Your task to perform on an android device: clear all cookies in the chrome app Image 0: 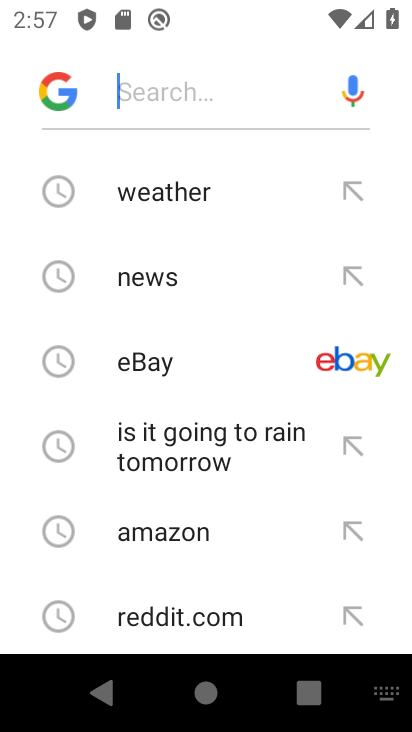
Step 0: press home button
Your task to perform on an android device: clear all cookies in the chrome app Image 1: 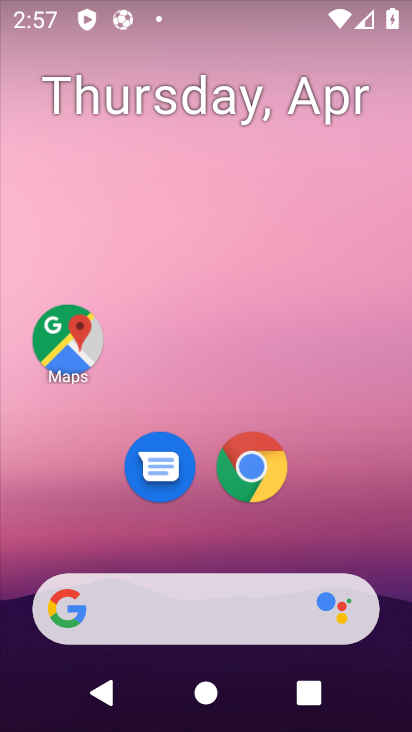
Step 1: click (266, 479)
Your task to perform on an android device: clear all cookies in the chrome app Image 2: 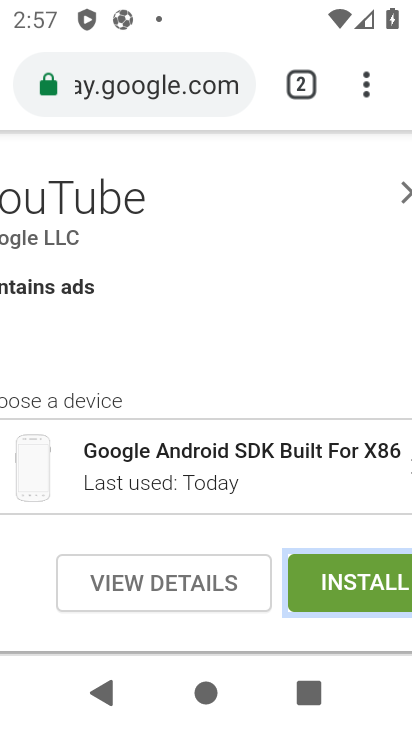
Step 2: click (362, 77)
Your task to perform on an android device: clear all cookies in the chrome app Image 3: 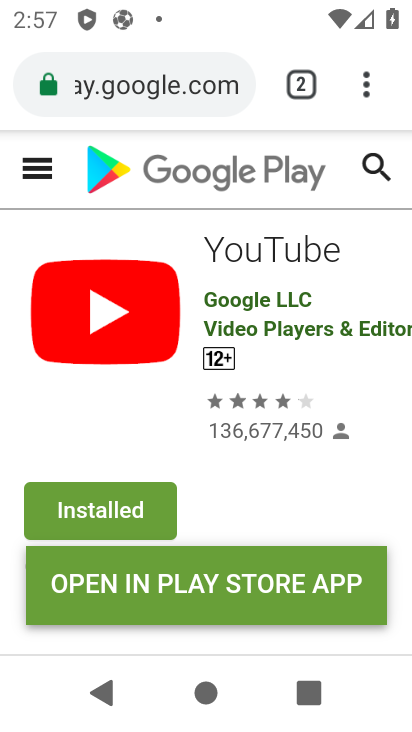
Step 3: click (362, 79)
Your task to perform on an android device: clear all cookies in the chrome app Image 4: 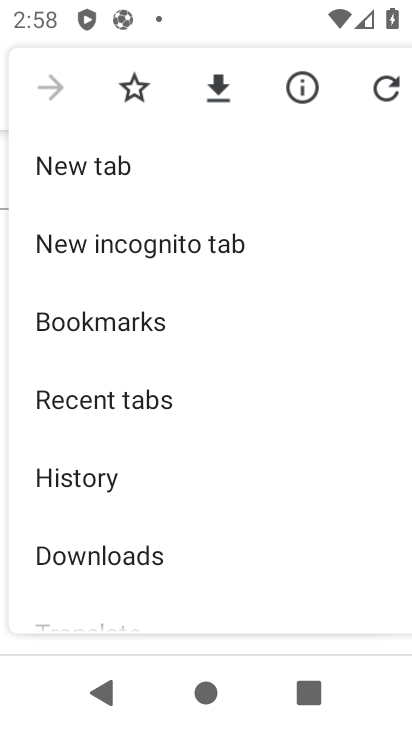
Step 4: drag from (220, 534) to (270, 201)
Your task to perform on an android device: clear all cookies in the chrome app Image 5: 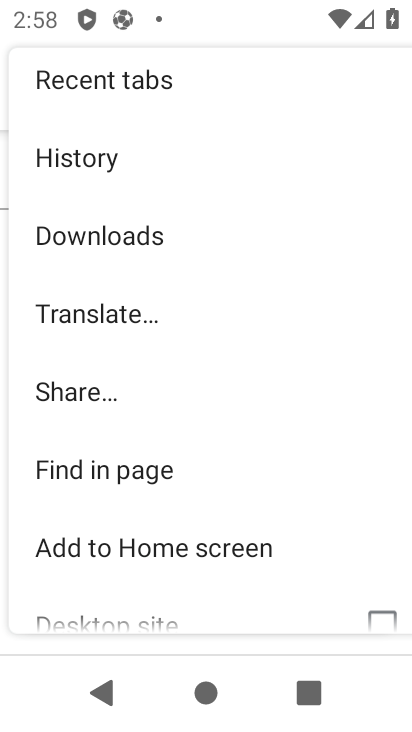
Step 5: drag from (214, 470) to (221, 135)
Your task to perform on an android device: clear all cookies in the chrome app Image 6: 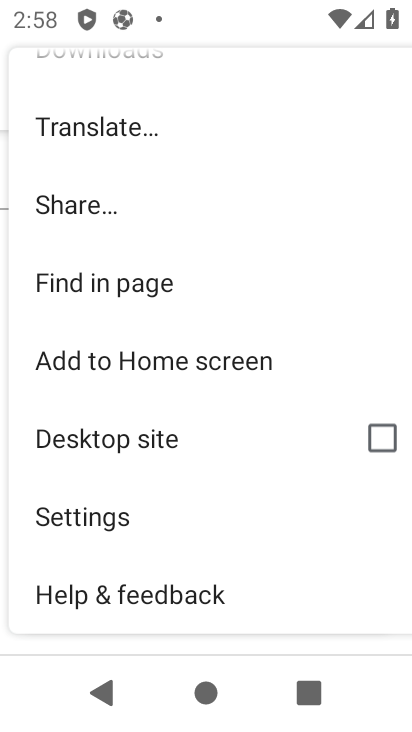
Step 6: click (138, 516)
Your task to perform on an android device: clear all cookies in the chrome app Image 7: 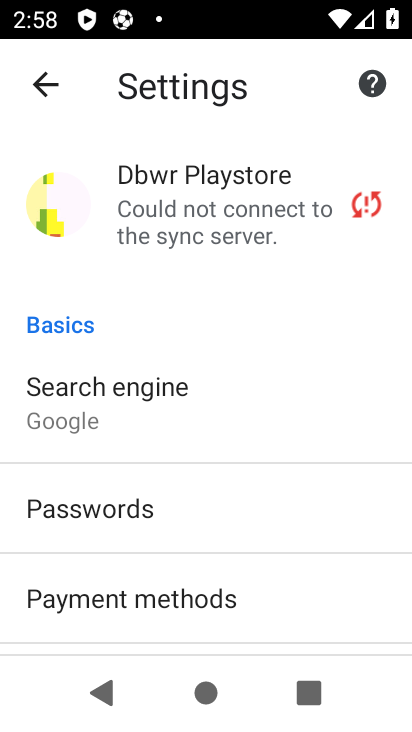
Step 7: drag from (222, 561) to (211, 247)
Your task to perform on an android device: clear all cookies in the chrome app Image 8: 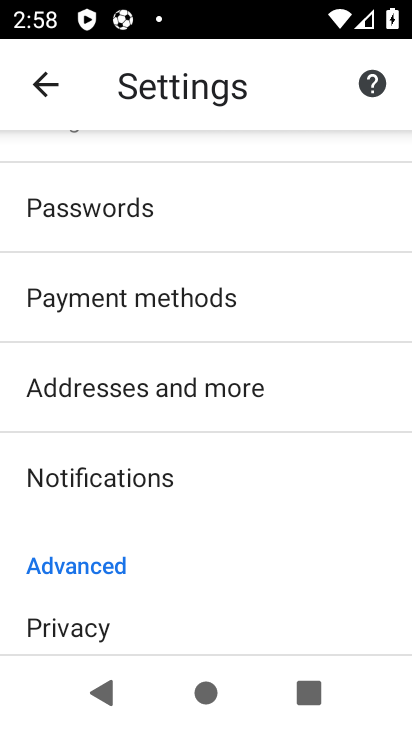
Step 8: drag from (221, 551) to (216, 384)
Your task to perform on an android device: clear all cookies in the chrome app Image 9: 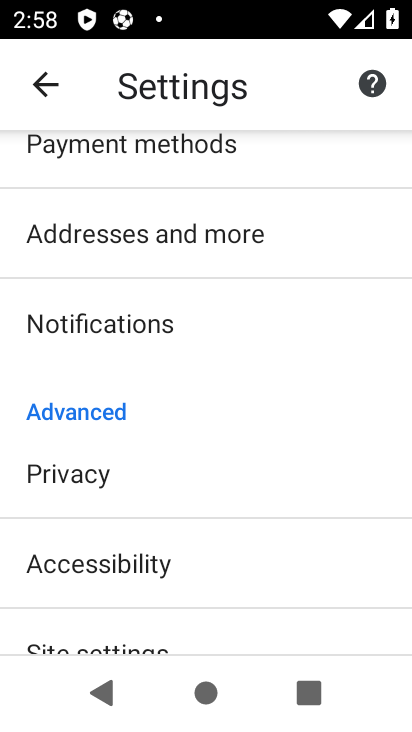
Step 9: click (203, 482)
Your task to perform on an android device: clear all cookies in the chrome app Image 10: 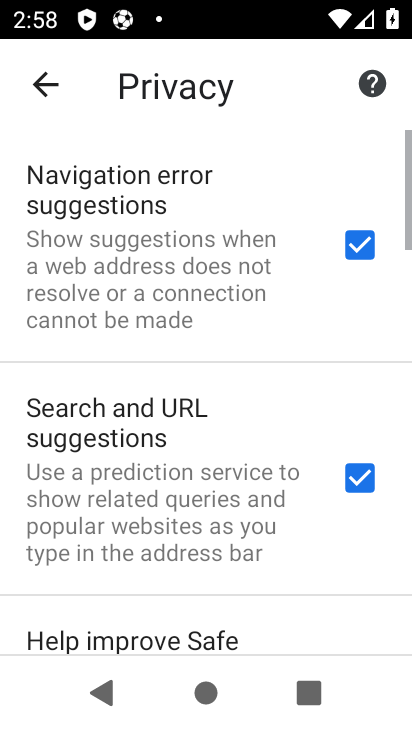
Step 10: drag from (224, 606) to (238, 212)
Your task to perform on an android device: clear all cookies in the chrome app Image 11: 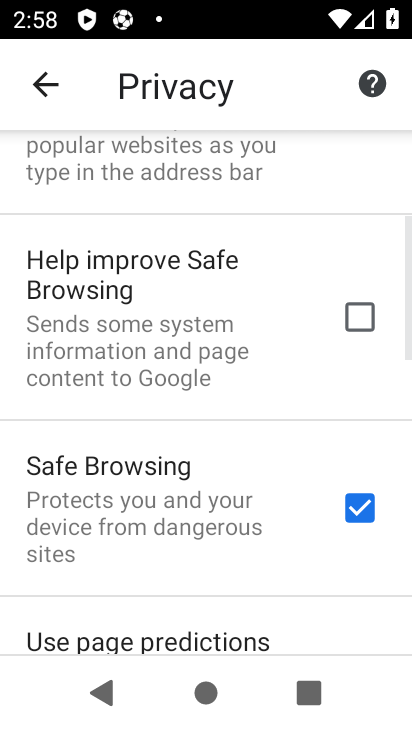
Step 11: drag from (224, 551) to (220, 338)
Your task to perform on an android device: clear all cookies in the chrome app Image 12: 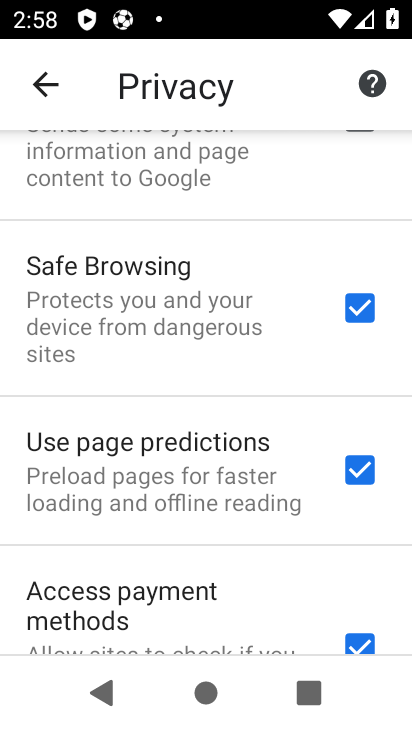
Step 12: drag from (196, 593) to (206, 268)
Your task to perform on an android device: clear all cookies in the chrome app Image 13: 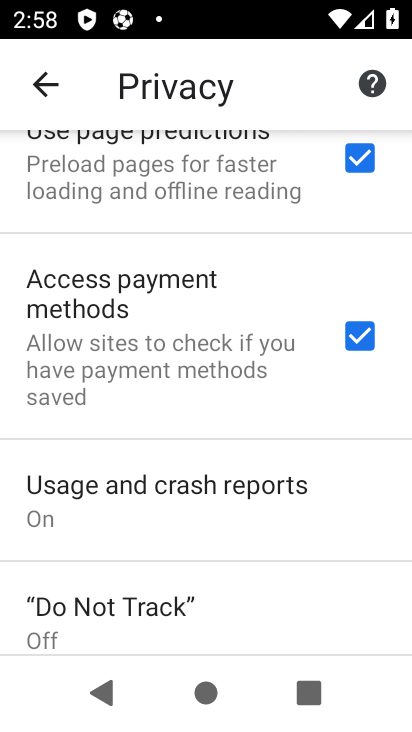
Step 13: drag from (184, 551) to (197, 226)
Your task to perform on an android device: clear all cookies in the chrome app Image 14: 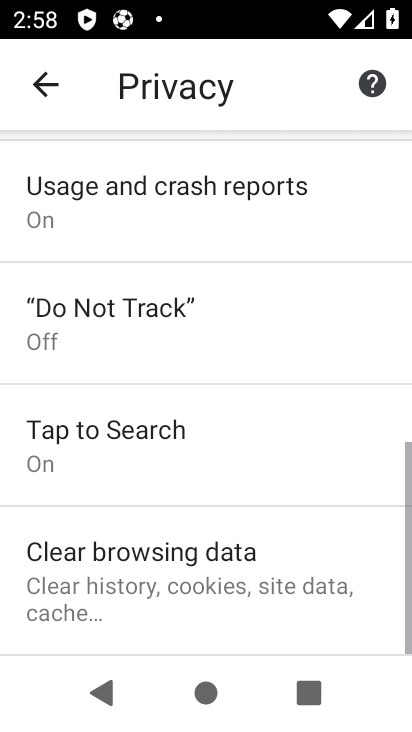
Step 14: click (197, 581)
Your task to perform on an android device: clear all cookies in the chrome app Image 15: 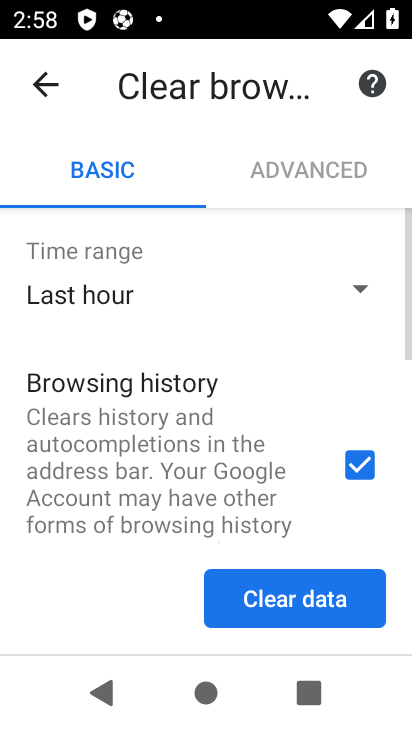
Step 15: click (358, 466)
Your task to perform on an android device: clear all cookies in the chrome app Image 16: 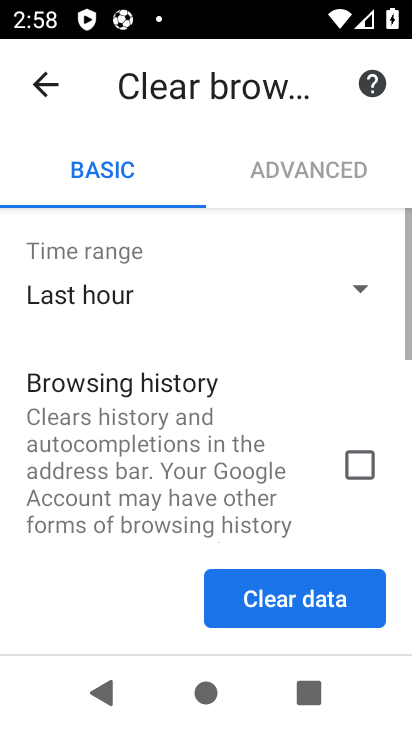
Step 16: drag from (261, 498) to (274, 239)
Your task to perform on an android device: clear all cookies in the chrome app Image 17: 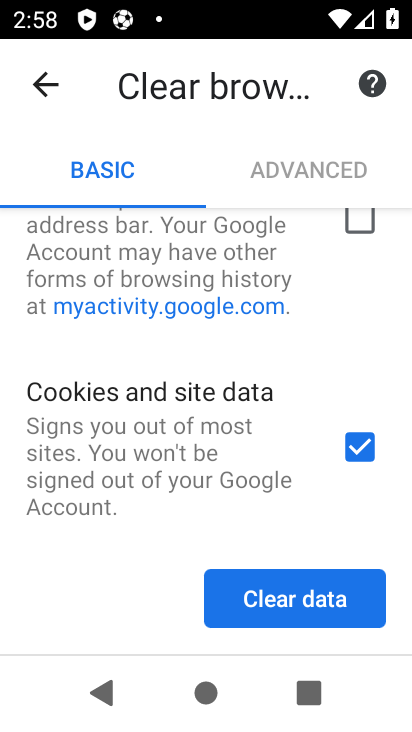
Step 17: drag from (249, 469) to (259, 209)
Your task to perform on an android device: clear all cookies in the chrome app Image 18: 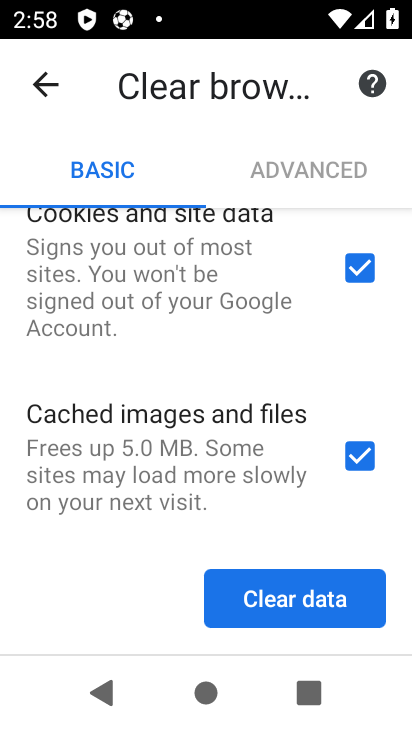
Step 18: click (353, 453)
Your task to perform on an android device: clear all cookies in the chrome app Image 19: 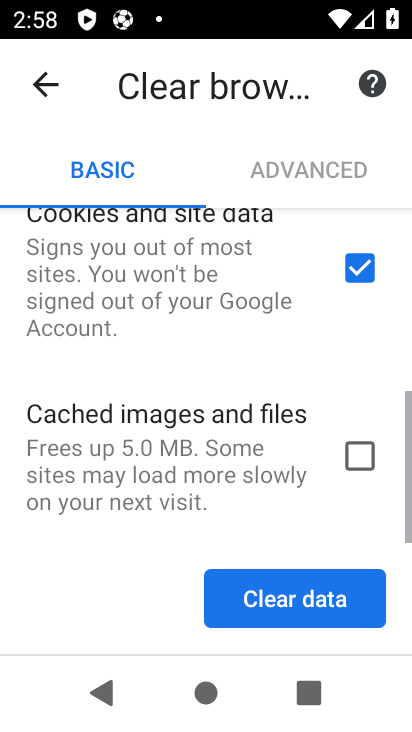
Step 19: click (330, 599)
Your task to perform on an android device: clear all cookies in the chrome app Image 20: 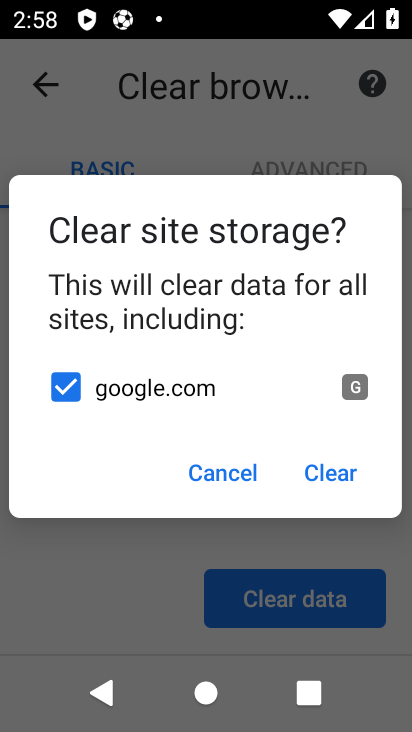
Step 20: click (325, 468)
Your task to perform on an android device: clear all cookies in the chrome app Image 21: 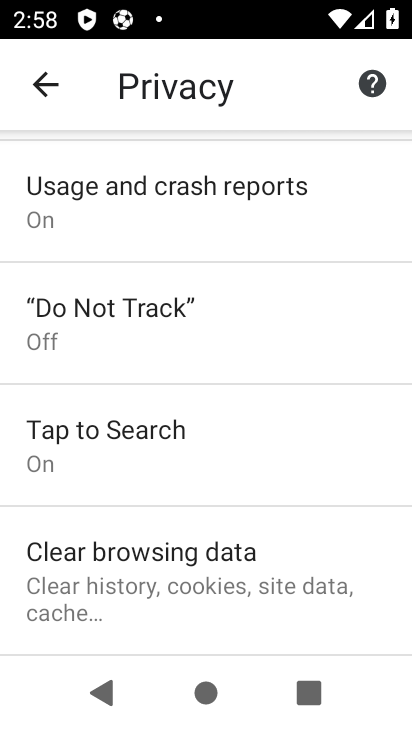
Step 21: task complete